Your task to perform on an android device: Open privacy settings Image 0: 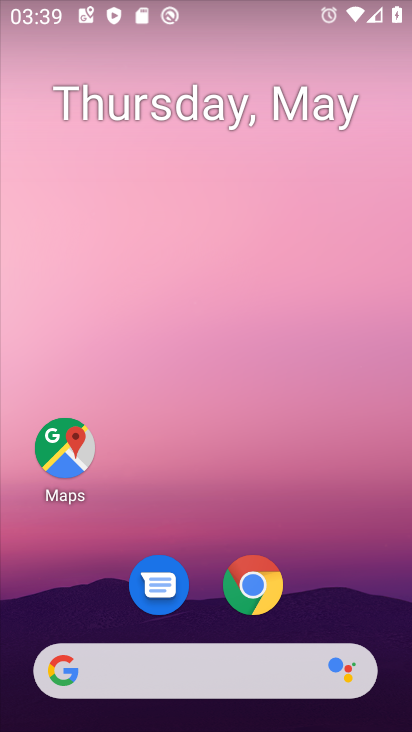
Step 0: drag from (216, 489) to (243, 0)
Your task to perform on an android device: Open privacy settings Image 1: 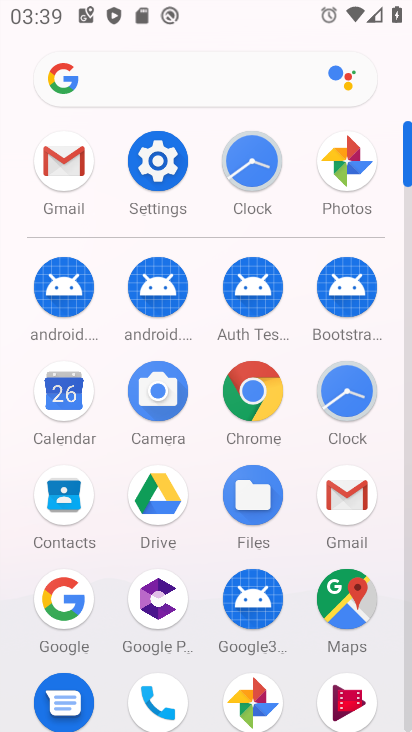
Step 1: click (161, 145)
Your task to perform on an android device: Open privacy settings Image 2: 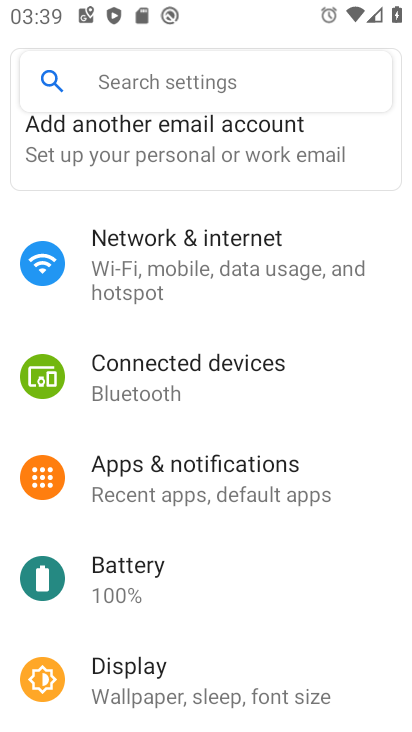
Step 2: drag from (260, 592) to (240, 51)
Your task to perform on an android device: Open privacy settings Image 3: 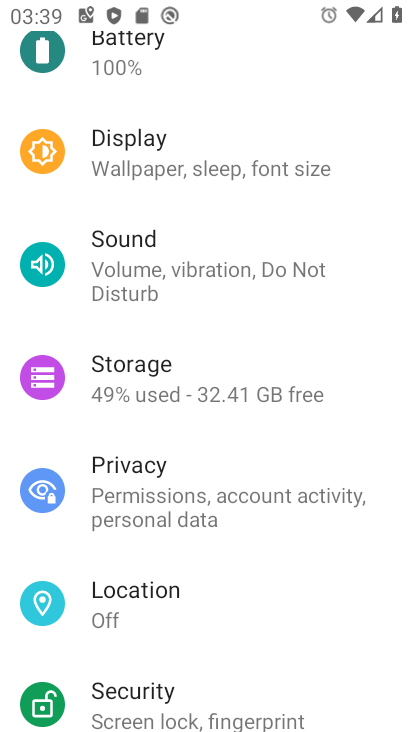
Step 3: click (230, 505)
Your task to perform on an android device: Open privacy settings Image 4: 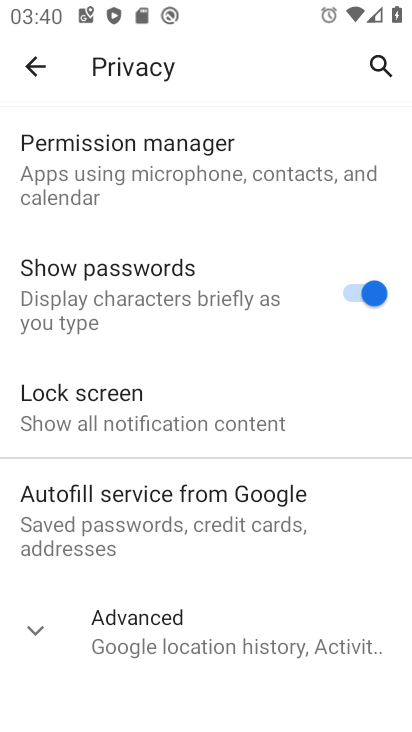
Step 4: task complete